Your task to perform on an android device: Go to privacy settings Image 0: 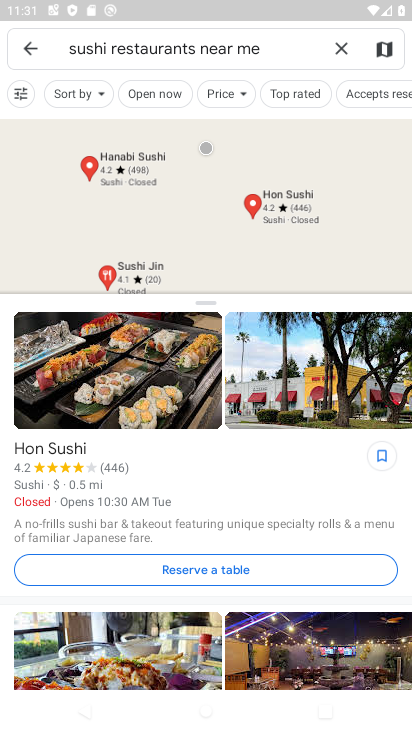
Step 0: press home button
Your task to perform on an android device: Go to privacy settings Image 1: 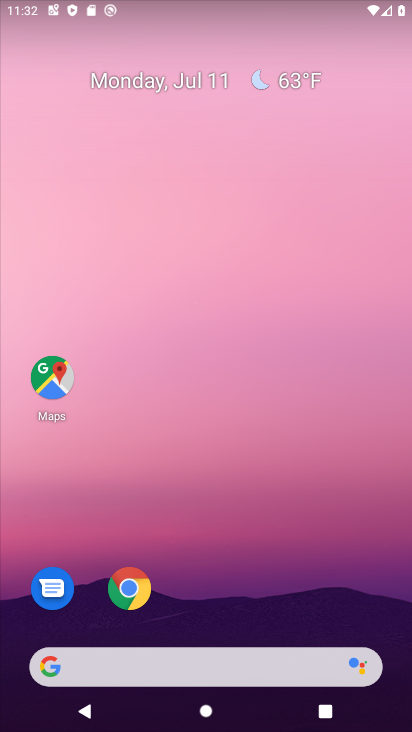
Step 1: drag from (247, 728) to (252, 83)
Your task to perform on an android device: Go to privacy settings Image 2: 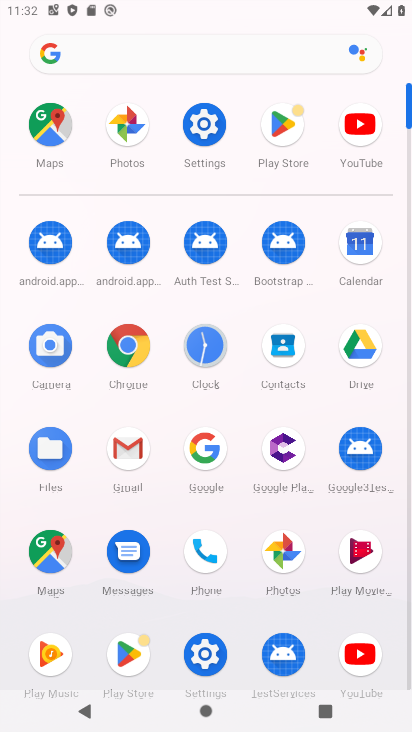
Step 2: click (204, 121)
Your task to perform on an android device: Go to privacy settings Image 3: 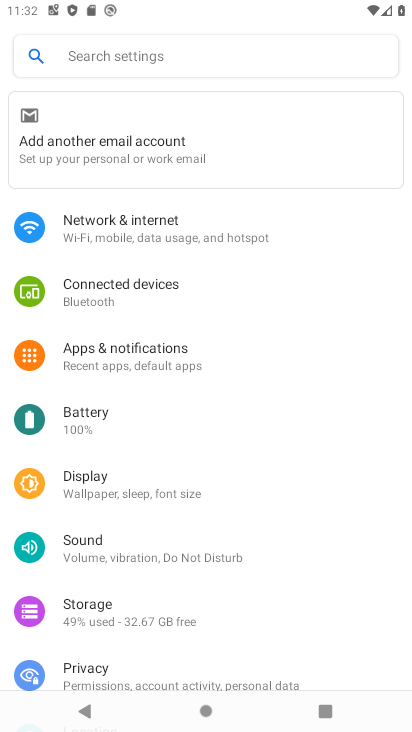
Step 3: click (84, 669)
Your task to perform on an android device: Go to privacy settings Image 4: 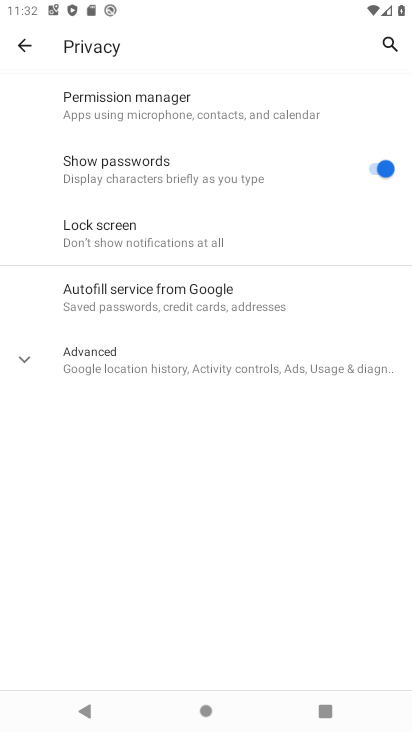
Step 4: task complete